Your task to perform on an android device: Open the web browser Image 0: 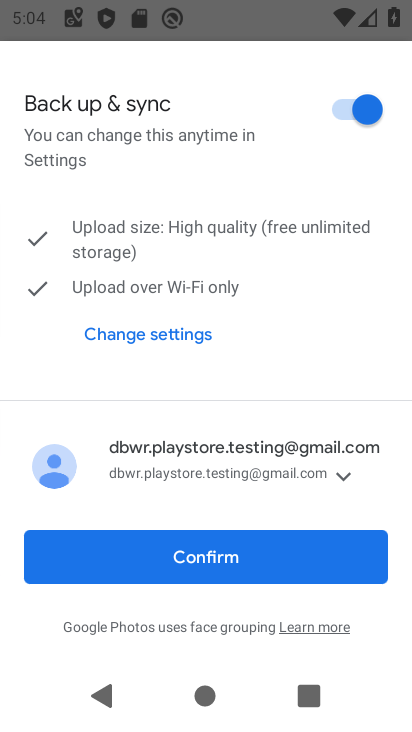
Step 0: press home button
Your task to perform on an android device: Open the web browser Image 1: 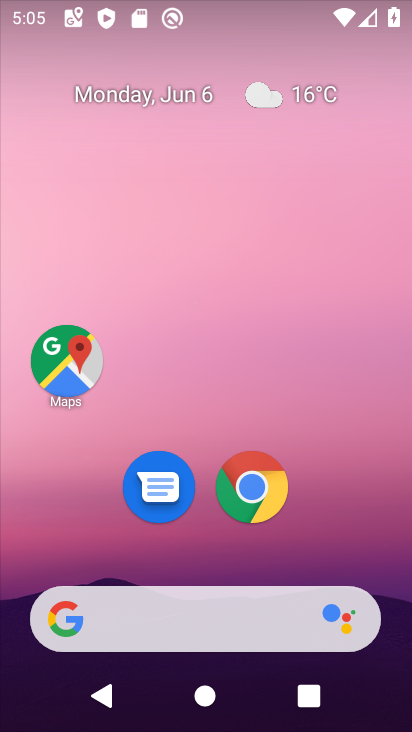
Step 1: click (266, 632)
Your task to perform on an android device: Open the web browser Image 2: 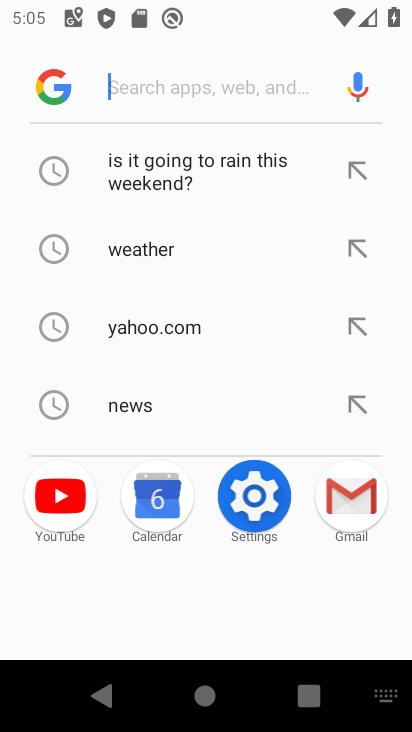
Step 2: task complete